Your task to perform on an android device: turn on translation in the chrome app Image 0: 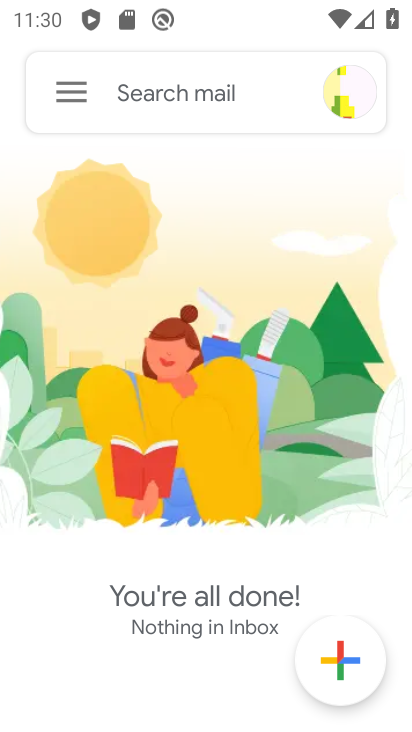
Step 0: press home button
Your task to perform on an android device: turn on translation in the chrome app Image 1: 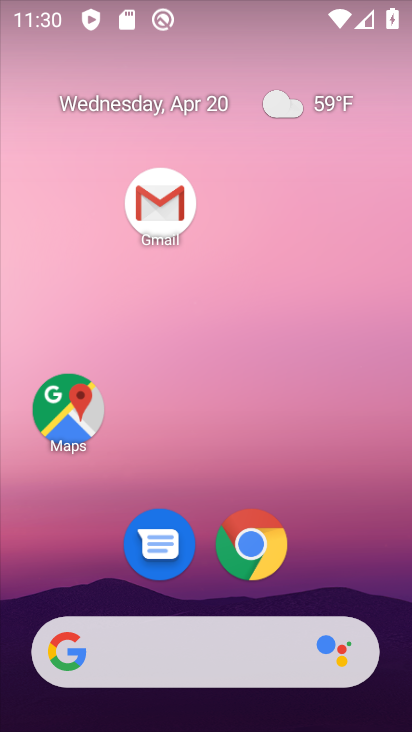
Step 1: click (273, 556)
Your task to perform on an android device: turn on translation in the chrome app Image 2: 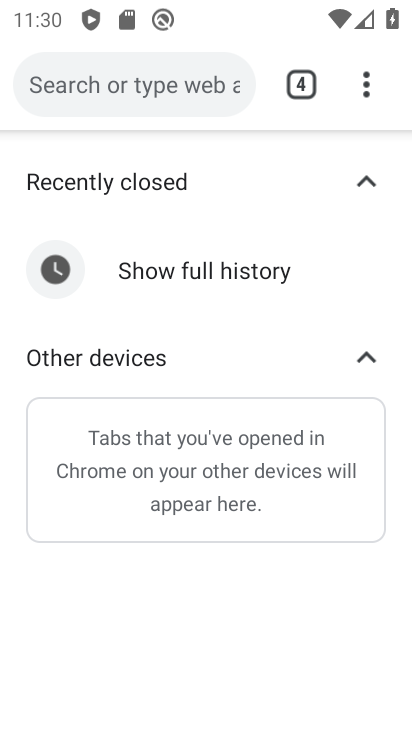
Step 2: click (365, 88)
Your task to perform on an android device: turn on translation in the chrome app Image 3: 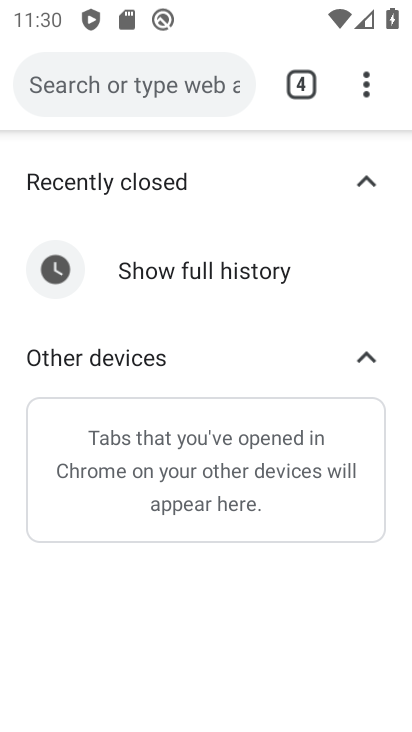
Step 3: click (365, 84)
Your task to perform on an android device: turn on translation in the chrome app Image 4: 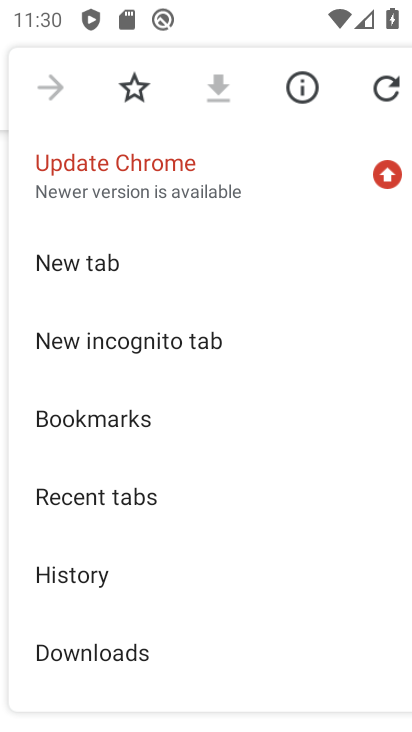
Step 4: drag from (238, 527) to (282, 144)
Your task to perform on an android device: turn on translation in the chrome app Image 5: 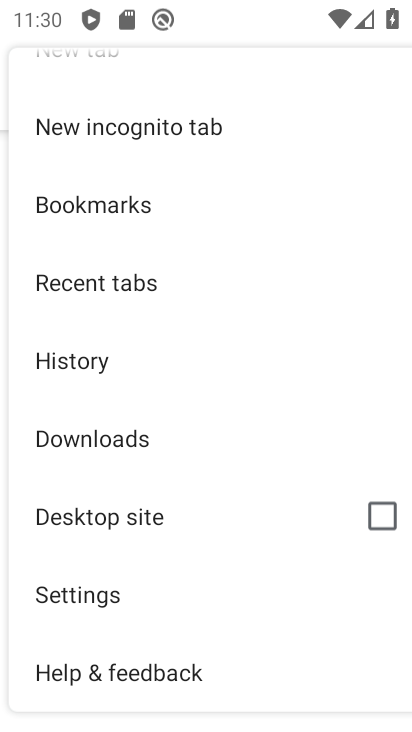
Step 5: click (133, 583)
Your task to perform on an android device: turn on translation in the chrome app Image 6: 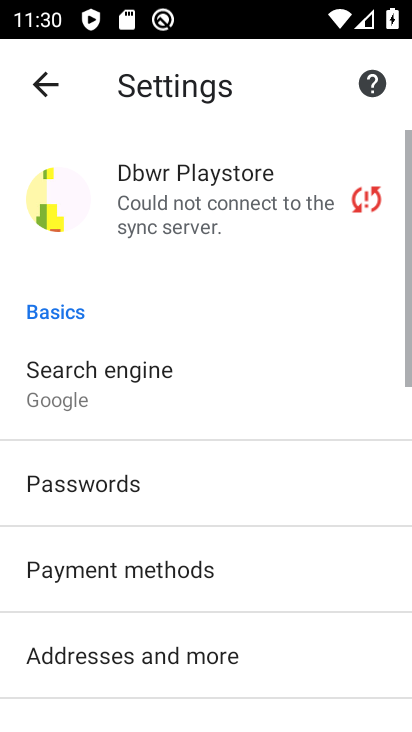
Step 6: drag from (141, 574) to (244, 193)
Your task to perform on an android device: turn on translation in the chrome app Image 7: 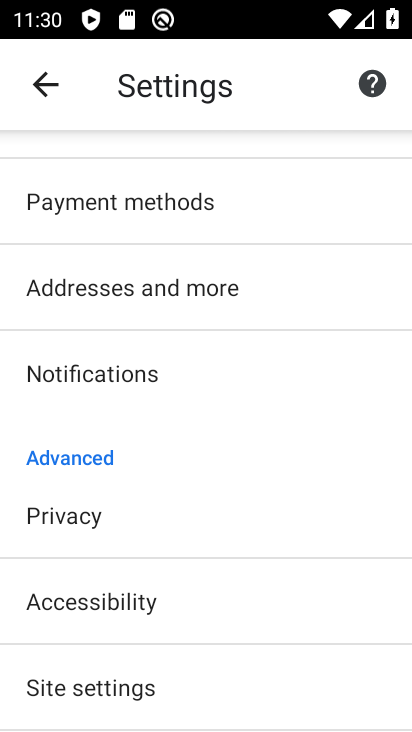
Step 7: drag from (149, 573) to (254, 234)
Your task to perform on an android device: turn on translation in the chrome app Image 8: 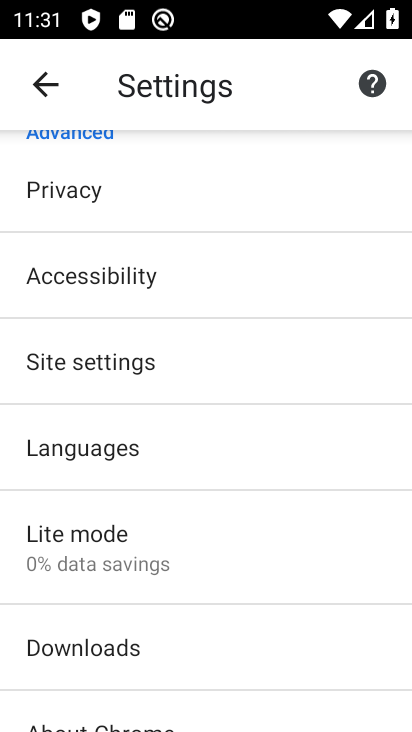
Step 8: click (158, 470)
Your task to perform on an android device: turn on translation in the chrome app Image 9: 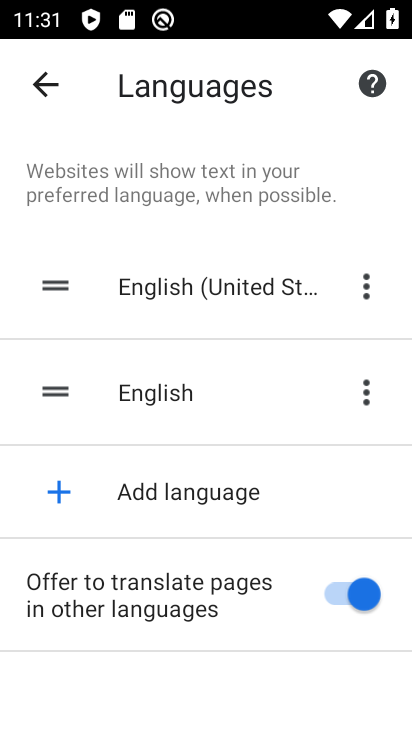
Step 9: task complete